Your task to perform on an android device: see sites visited before in the chrome app Image 0: 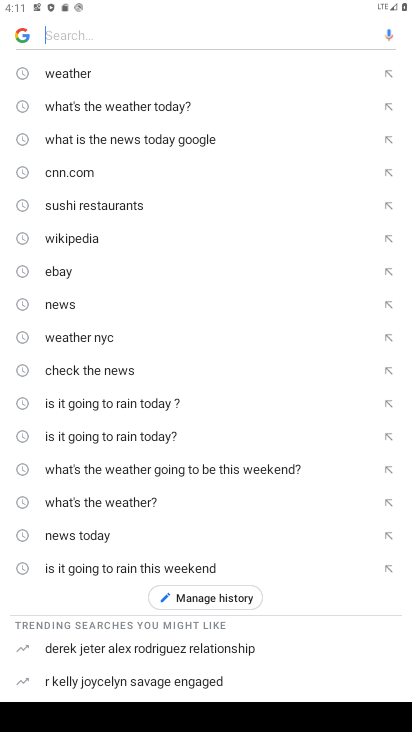
Step 0: press home button
Your task to perform on an android device: see sites visited before in the chrome app Image 1: 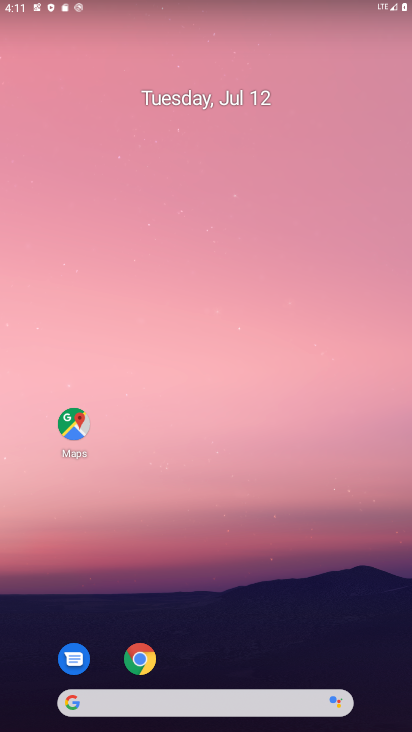
Step 1: click (119, 654)
Your task to perform on an android device: see sites visited before in the chrome app Image 2: 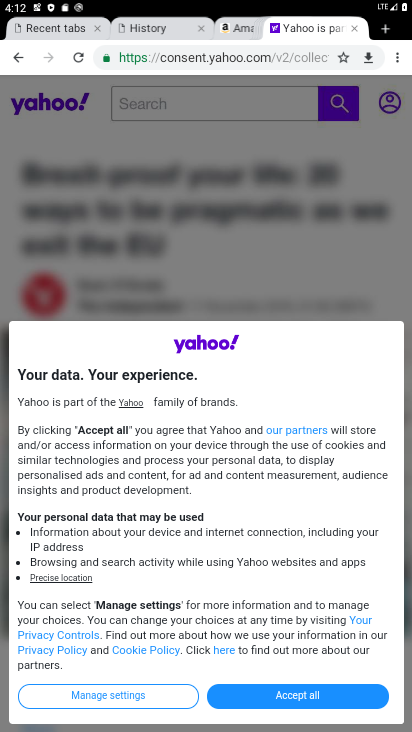
Step 2: click (397, 59)
Your task to perform on an android device: see sites visited before in the chrome app Image 3: 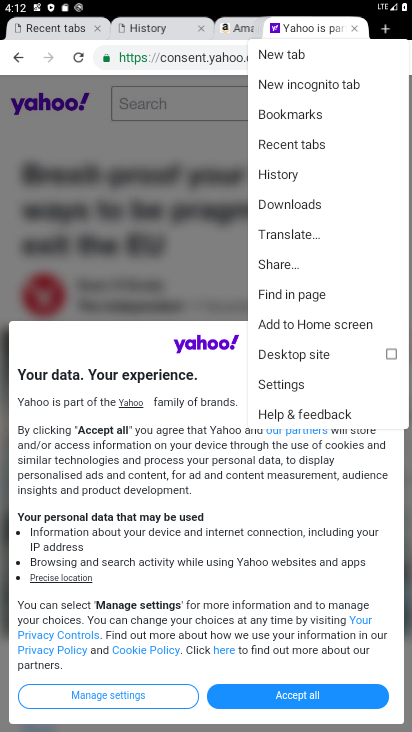
Step 3: click (278, 174)
Your task to perform on an android device: see sites visited before in the chrome app Image 4: 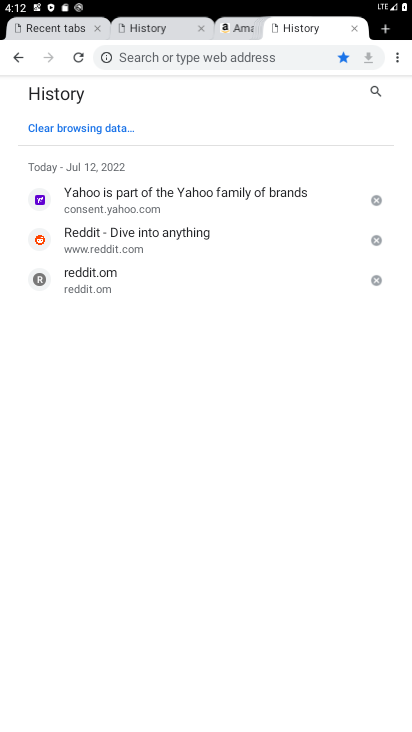
Step 4: task complete